Your task to perform on an android device: turn off wifi Image 0: 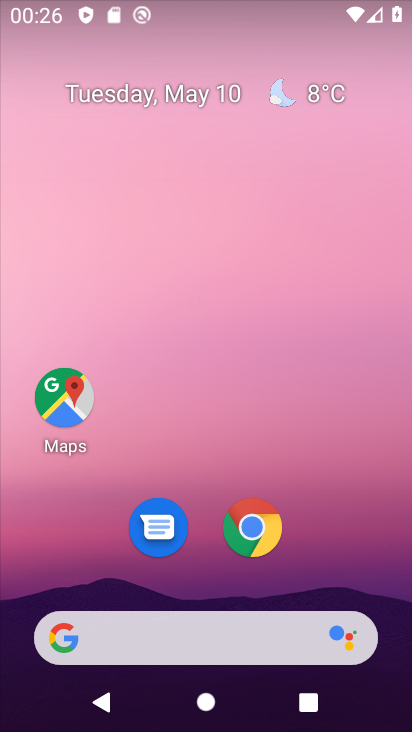
Step 0: drag from (340, 558) to (89, 132)
Your task to perform on an android device: turn off wifi Image 1: 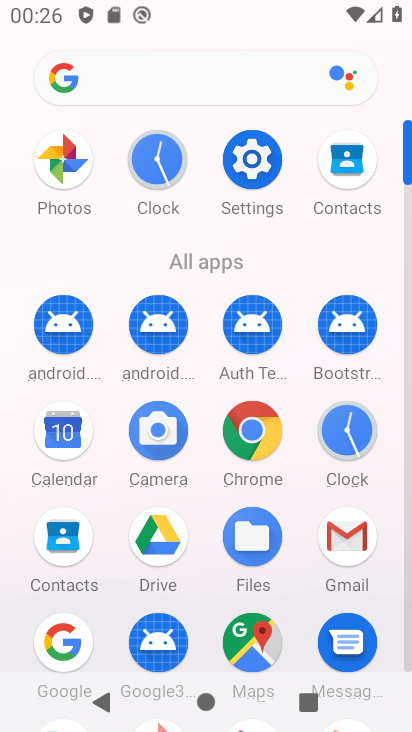
Step 1: click (239, 140)
Your task to perform on an android device: turn off wifi Image 2: 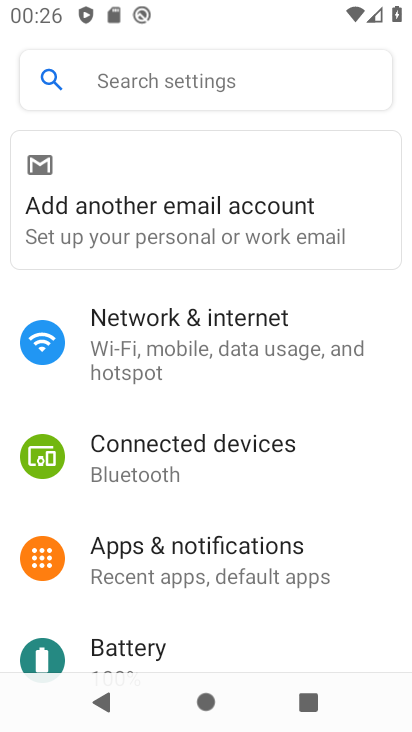
Step 2: click (199, 332)
Your task to perform on an android device: turn off wifi Image 3: 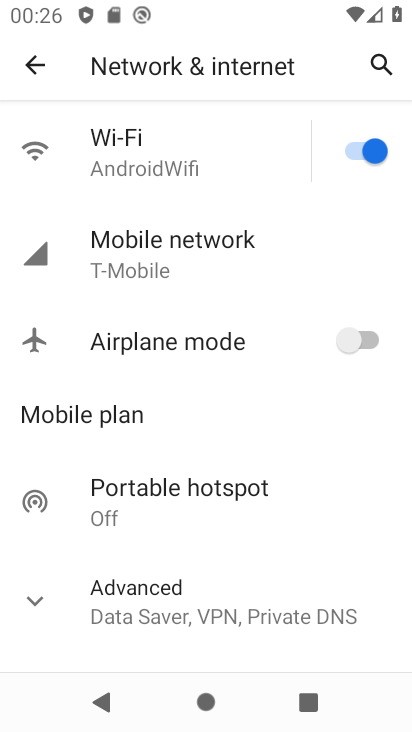
Step 3: click (360, 147)
Your task to perform on an android device: turn off wifi Image 4: 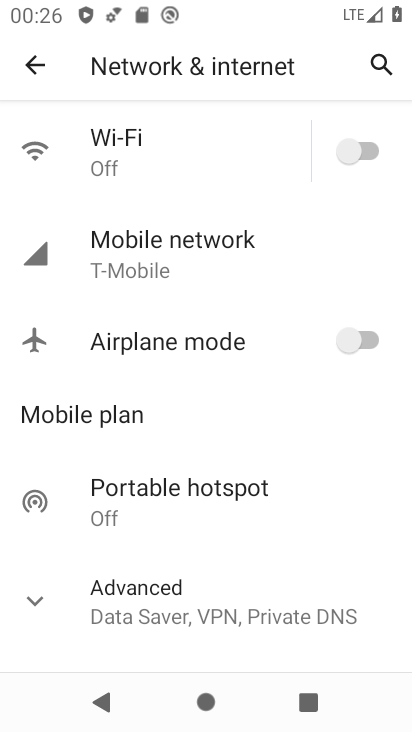
Step 4: task complete